Your task to perform on an android device: visit the assistant section in the google photos Image 0: 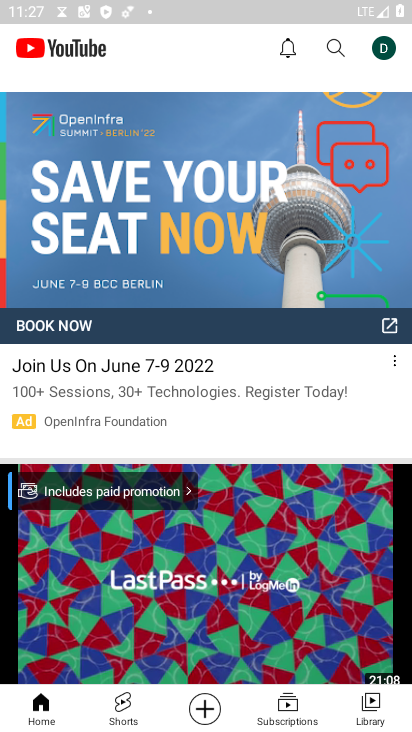
Step 0: press back button
Your task to perform on an android device: visit the assistant section in the google photos Image 1: 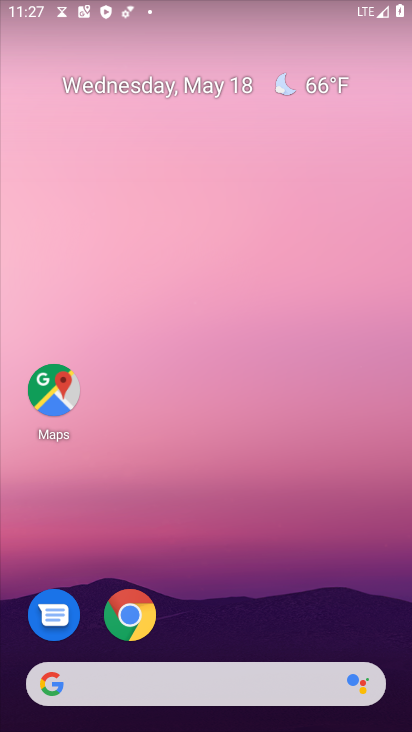
Step 1: drag from (215, 553) to (223, 42)
Your task to perform on an android device: visit the assistant section in the google photos Image 2: 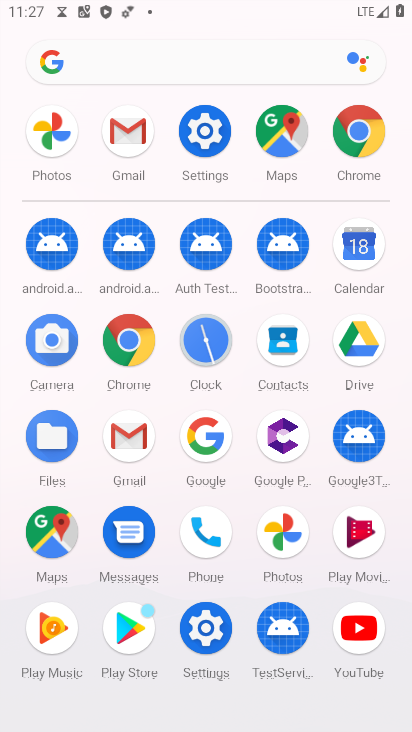
Step 2: drag from (3, 495) to (29, 204)
Your task to perform on an android device: visit the assistant section in the google photos Image 3: 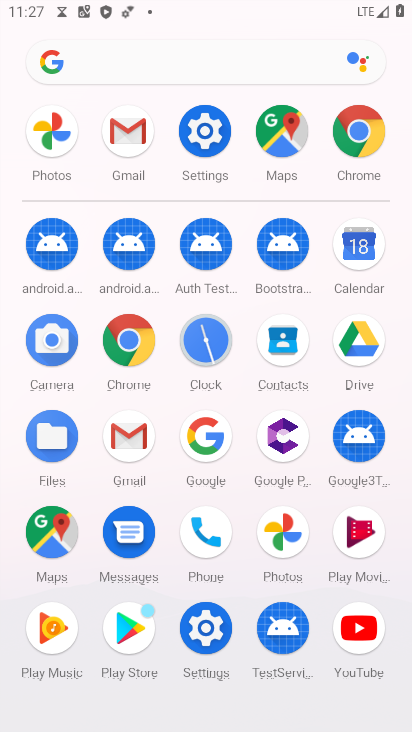
Step 3: click (283, 523)
Your task to perform on an android device: visit the assistant section in the google photos Image 4: 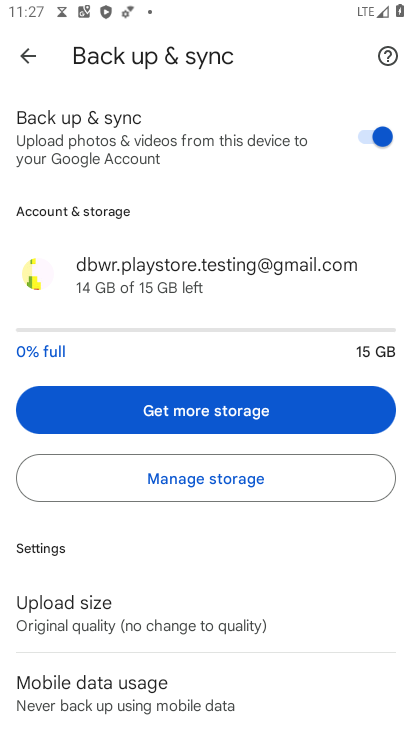
Step 4: click (25, 53)
Your task to perform on an android device: visit the assistant section in the google photos Image 5: 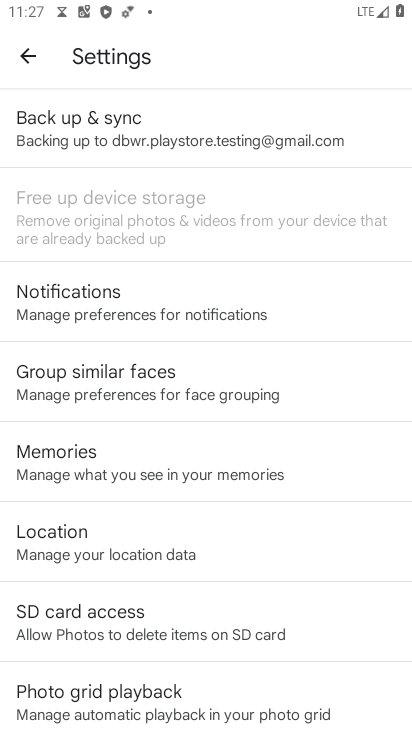
Step 5: click (25, 53)
Your task to perform on an android device: visit the assistant section in the google photos Image 6: 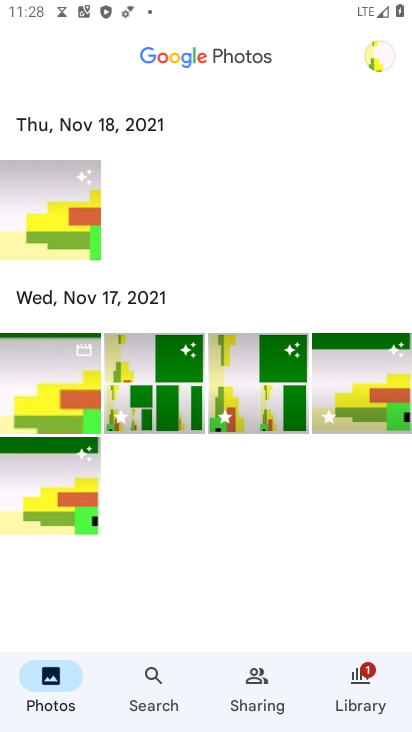
Step 6: click (269, 682)
Your task to perform on an android device: visit the assistant section in the google photos Image 7: 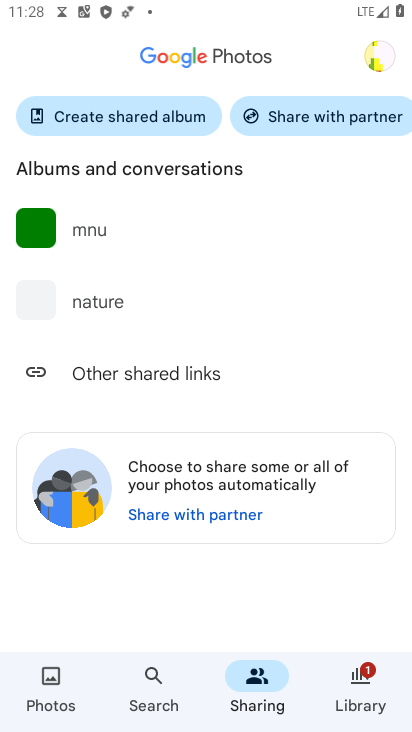
Step 7: task complete